Your task to perform on an android device: View the shopping cart on walmart.com. Image 0: 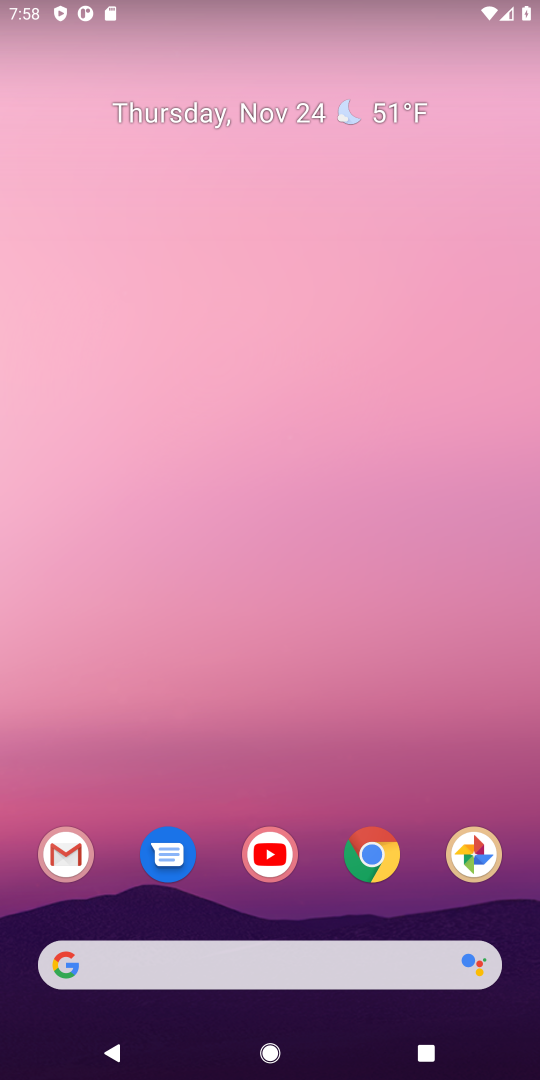
Step 0: click (376, 854)
Your task to perform on an android device: View the shopping cart on walmart.com. Image 1: 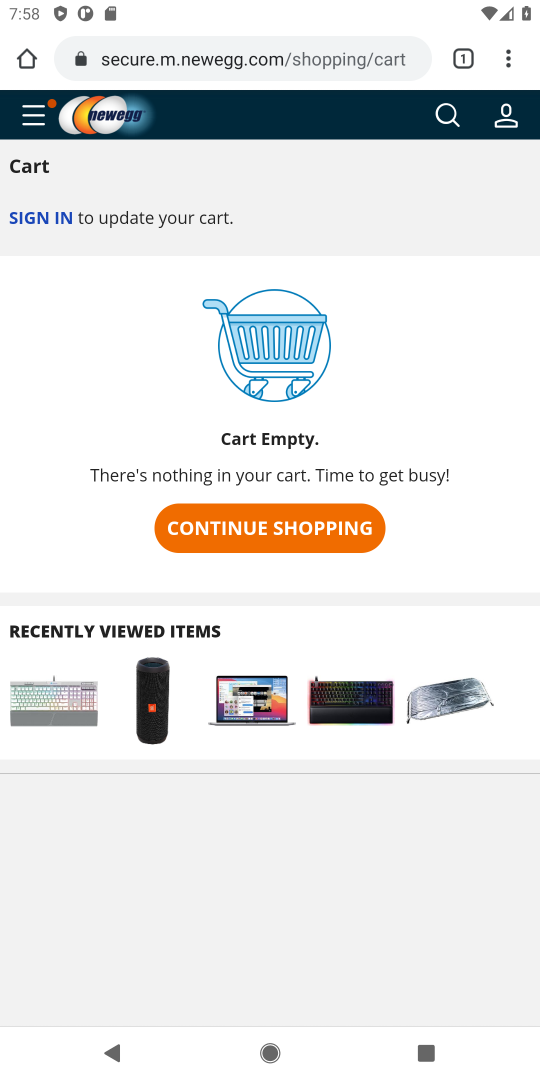
Step 1: click (247, 54)
Your task to perform on an android device: View the shopping cart on walmart.com. Image 2: 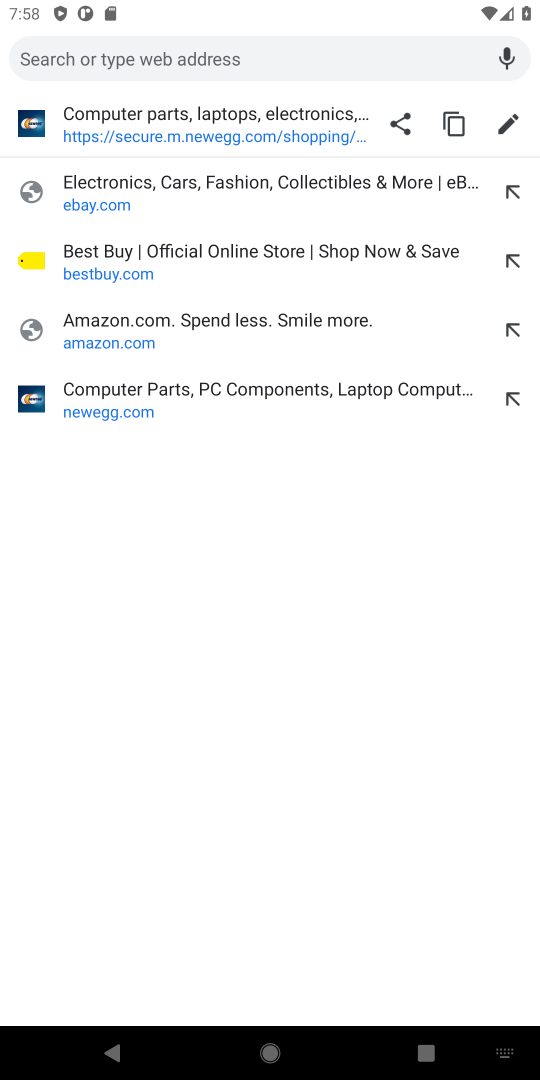
Step 2: type "walmart.com"
Your task to perform on an android device: View the shopping cart on walmart.com. Image 3: 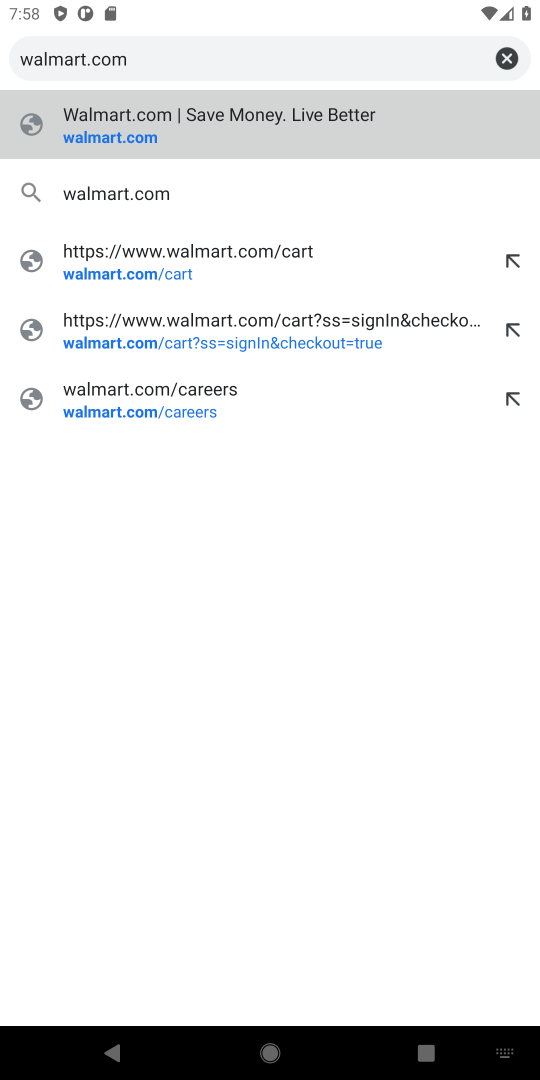
Step 3: click (113, 139)
Your task to perform on an android device: View the shopping cart on walmart.com. Image 4: 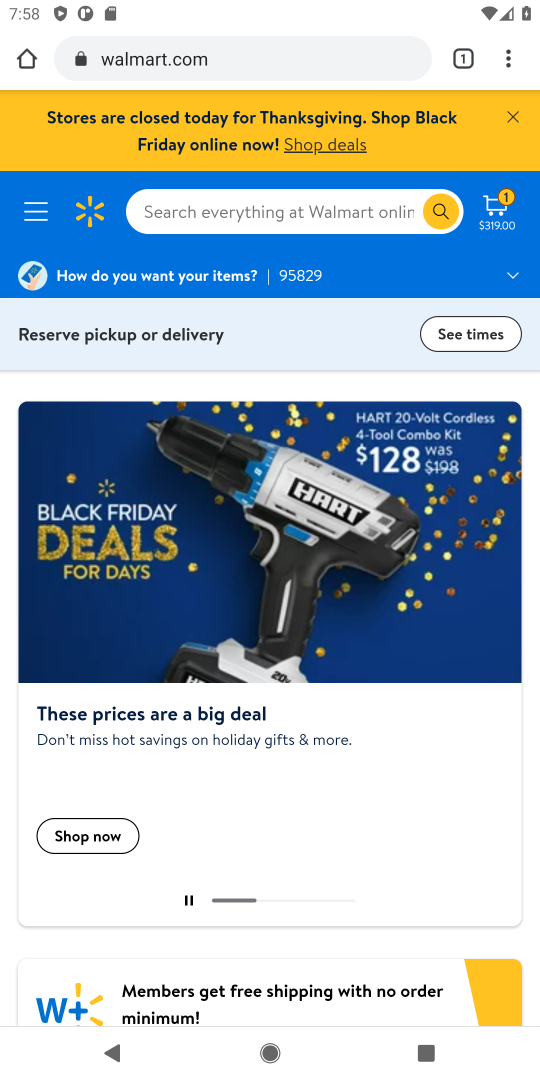
Step 4: click (505, 209)
Your task to perform on an android device: View the shopping cart on walmart.com. Image 5: 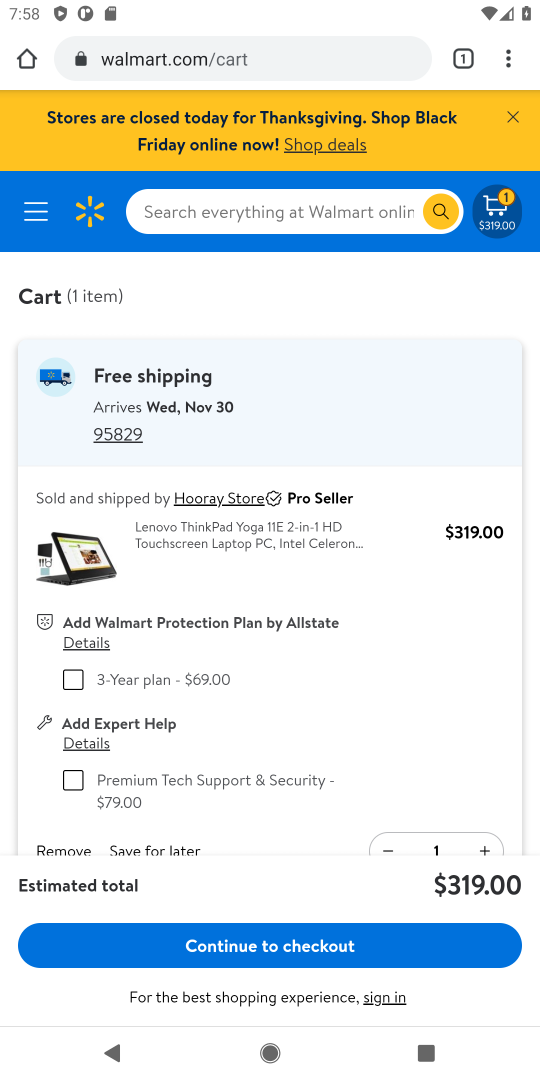
Step 5: task complete